Your task to perform on an android device: turn notification dots off Image 0: 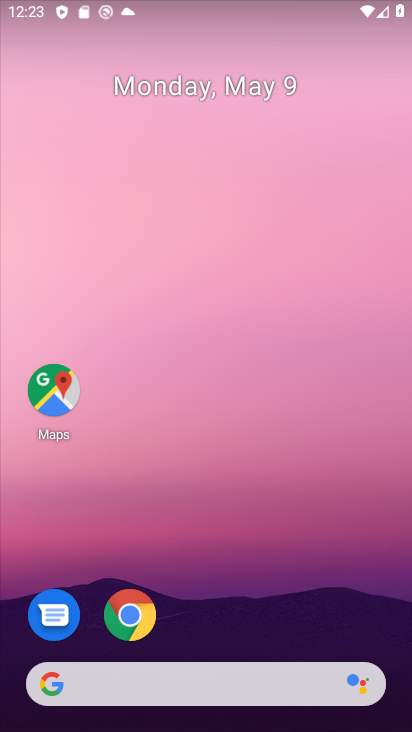
Step 0: drag from (259, 600) to (233, 74)
Your task to perform on an android device: turn notification dots off Image 1: 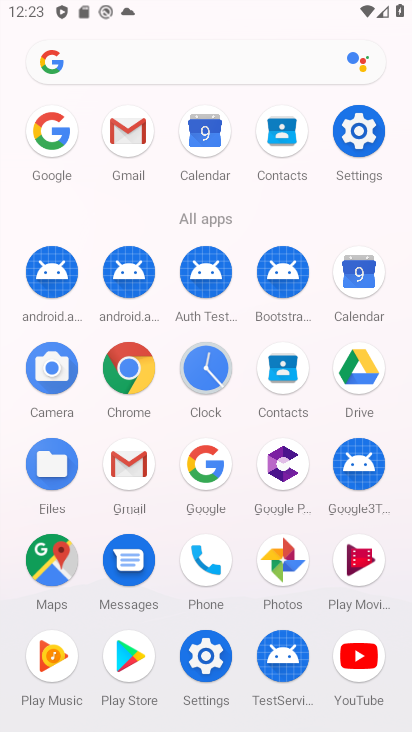
Step 1: click (361, 129)
Your task to perform on an android device: turn notification dots off Image 2: 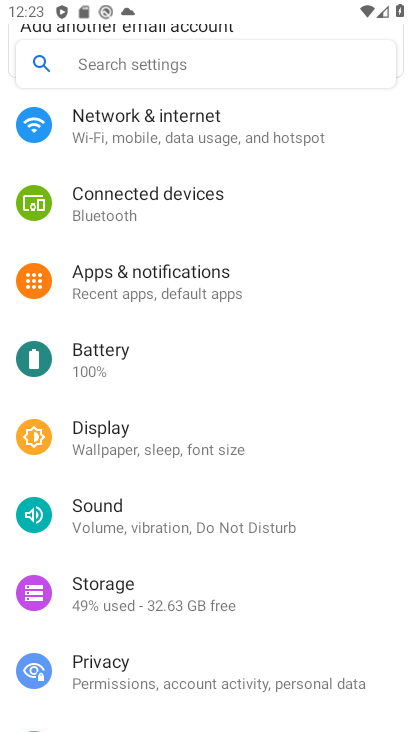
Step 2: click (210, 274)
Your task to perform on an android device: turn notification dots off Image 3: 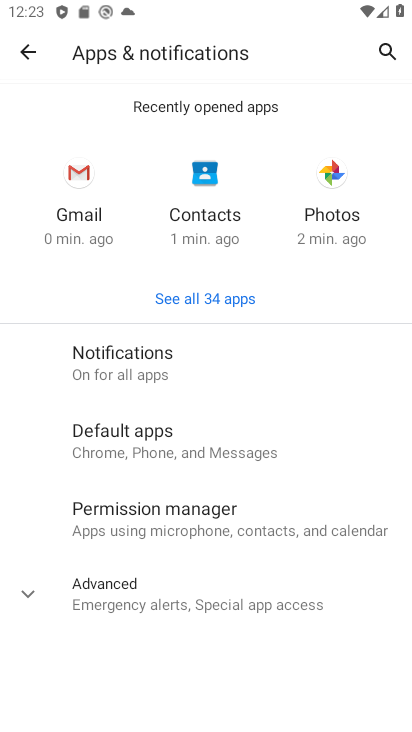
Step 3: click (131, 353)
Your task to perform on an android device: turn notification dots off Image 4: 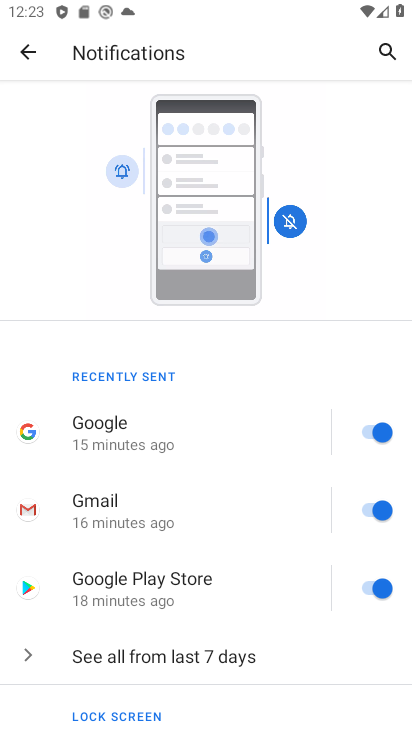
Step 4: drag from (175, 410) to (180, 323)
Your task to perform on an android device: turn notification dots off Image 5: 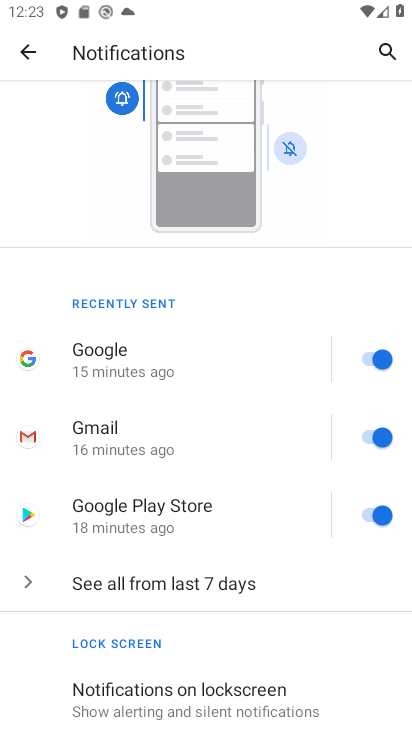
Step 5: drag from (159, 401) to (173, 320)
Your task to perform on an android device: turn notification dots off Image 6: 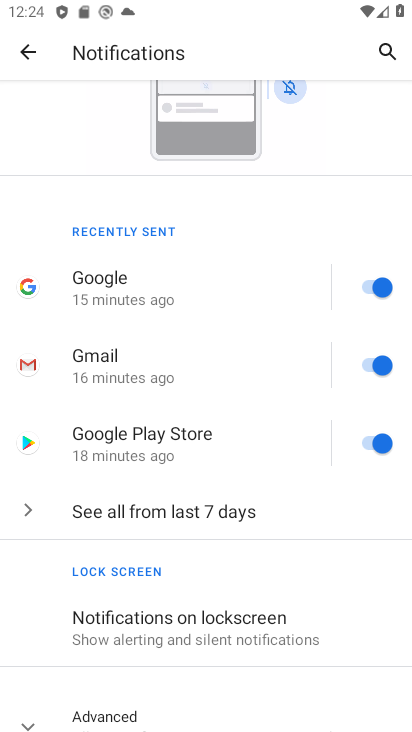
Step 6: drag from (135, 407) to (174, 317)
Your task to perform on an android device: turn notification dots off Image 7: 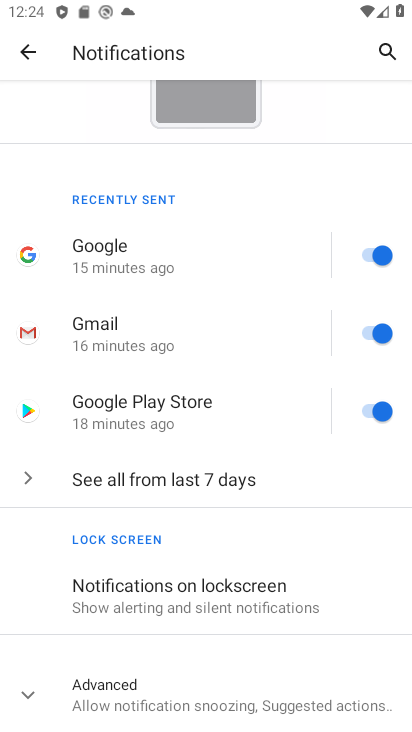
Step 7: drag from (147, 561) to (242, 393)
Your task to perform on an android device: turn notification dots off Image 8: 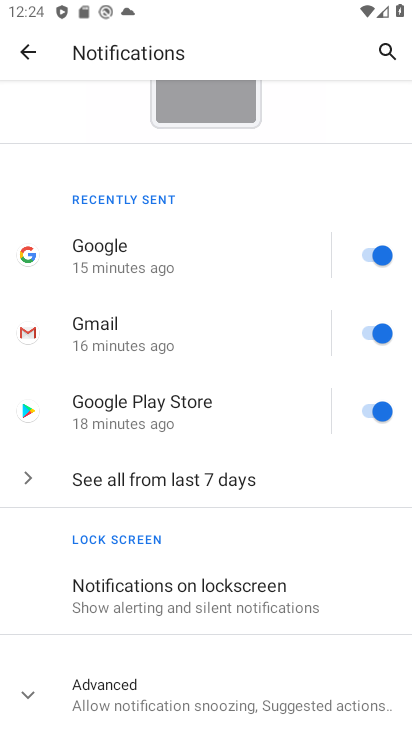
Step 8: click (139, 700)
Your task to perform on an android device: turn notification dots off Image 9: 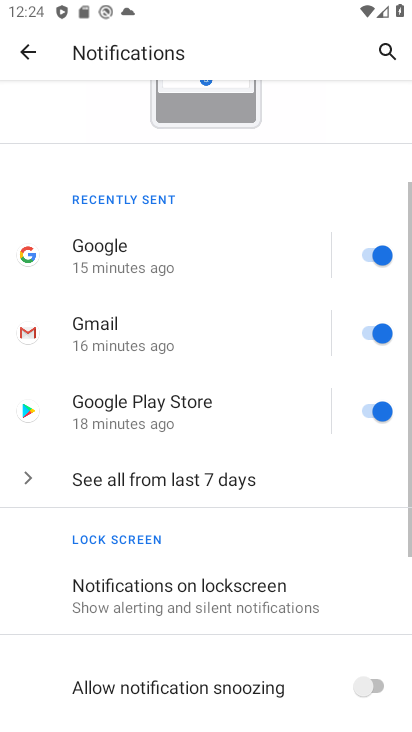
Step 9: task complete